Your task to perform on an android device: toggle location history Image 0: 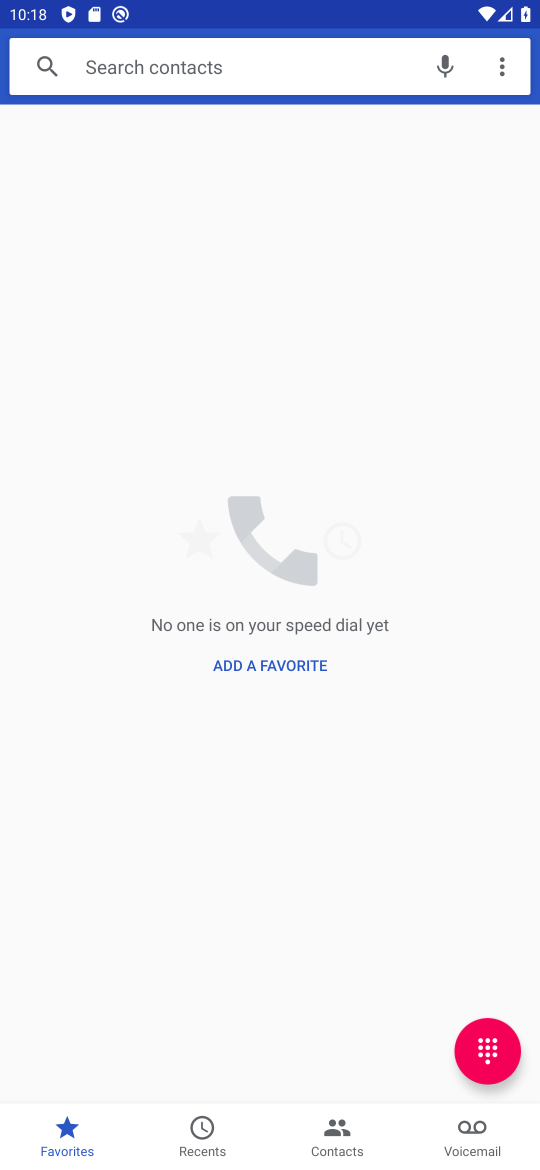
Step 0: press home button
Your task to perform on an android device: toggle location history Image 1: 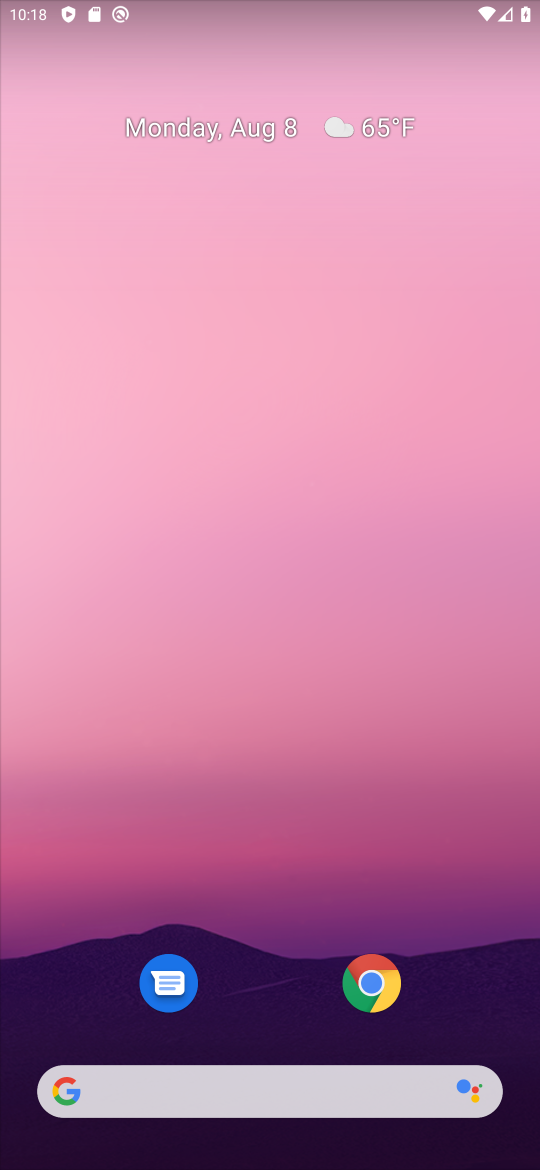
Step 1: drag from (234, 1044) to (198, 136)
Your task to perform on an android device: toggle location history Image 2: 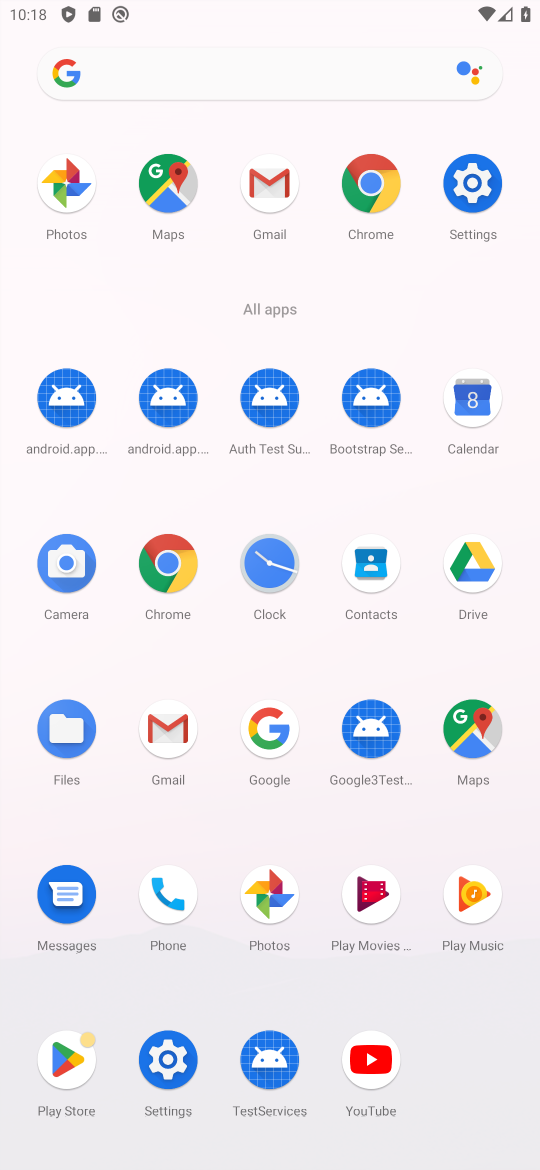
Step 2: click (456, 222)
Your task to perform on an android device: toggle location history Image 3: 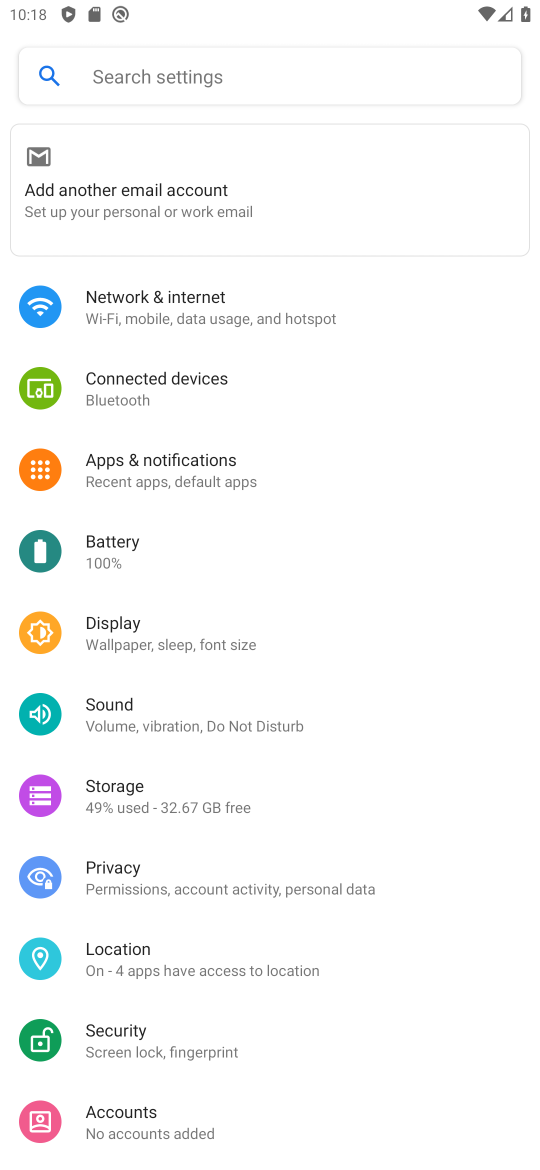
Step 3: click (125, 945)
Your task to perform on an android device: toggle location history Image 4: 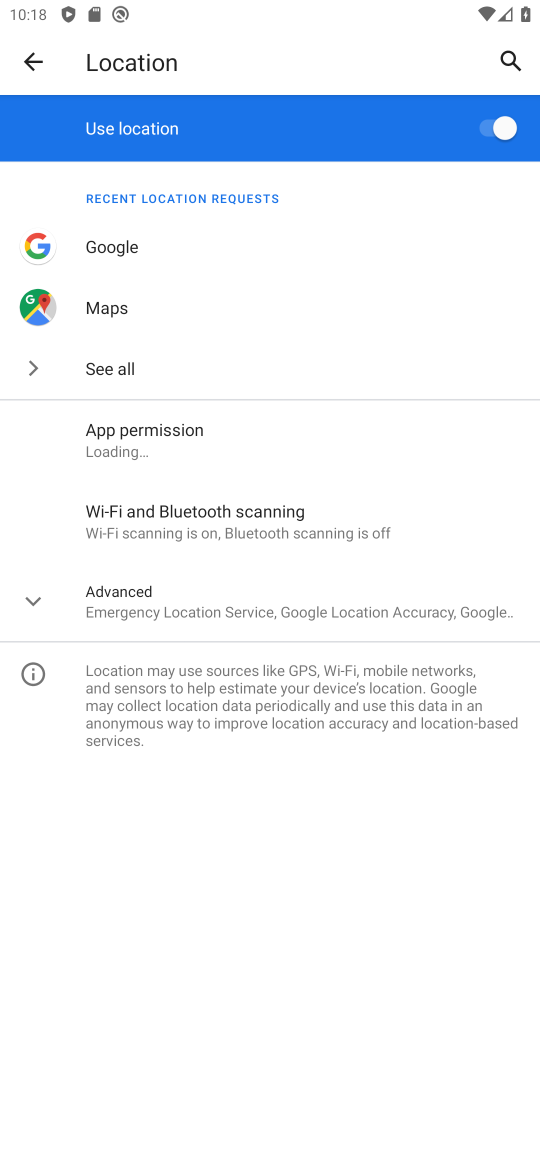
Step 4: click (159, 591)
Your task to perform on an android device: toggle location history Image 5: 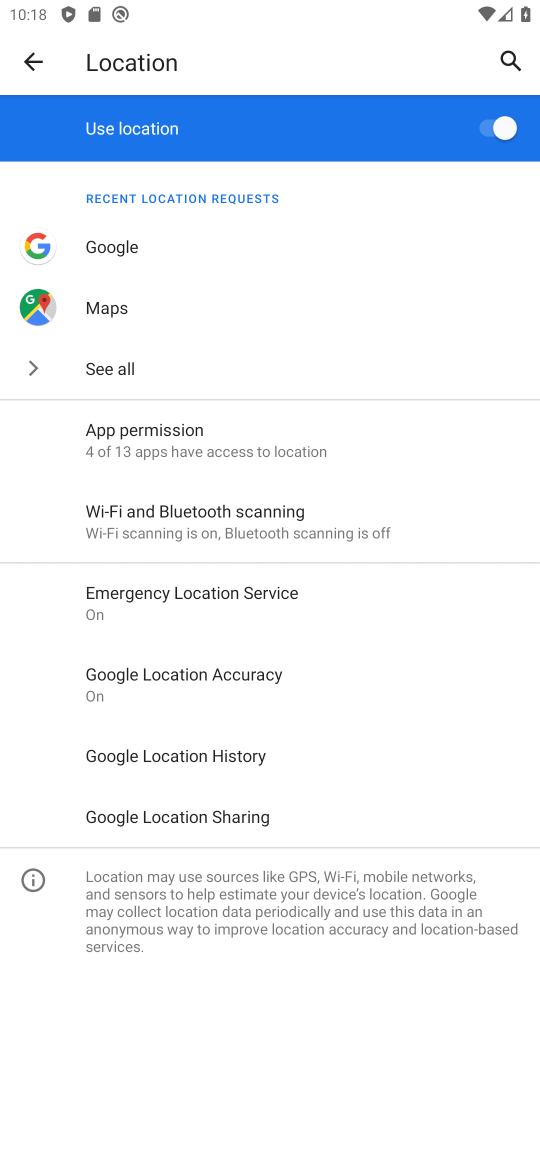
Step 5: click (234, 759)
Your task to perform on an android device: toggle location history Image 6: 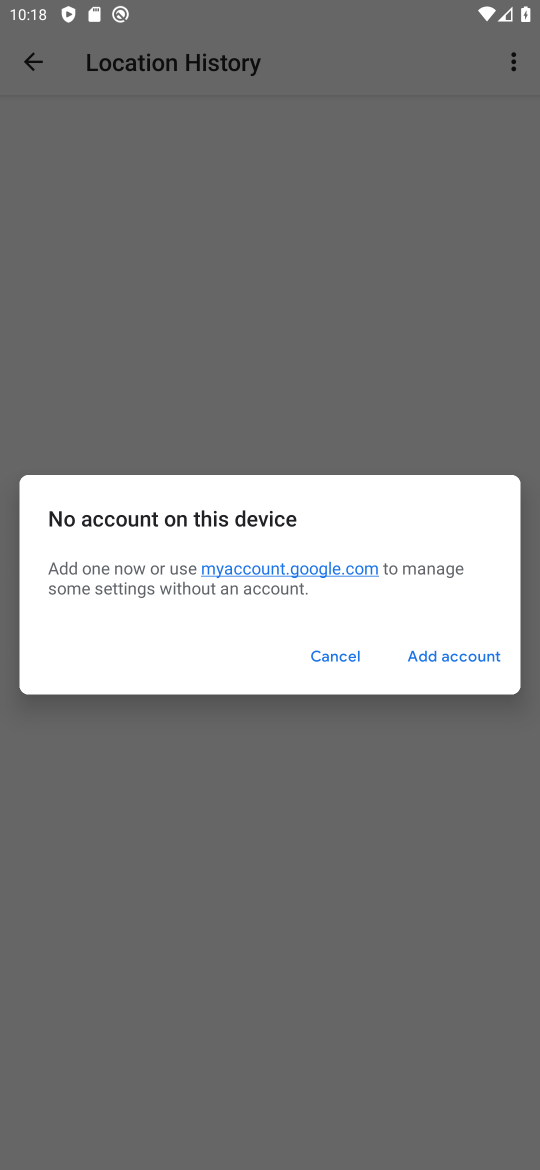
Step 6: click (360, 648)
Your task to perform on an android device: toggle location history Image 7: 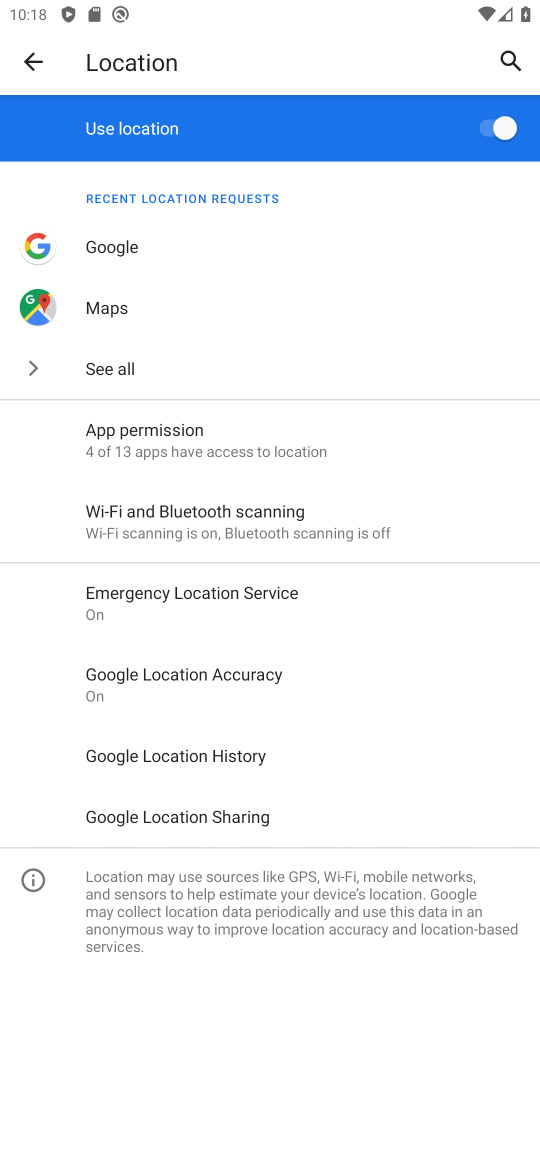
Step 7: task complete